Your task to perform on an android device: set an alarm Image 0: 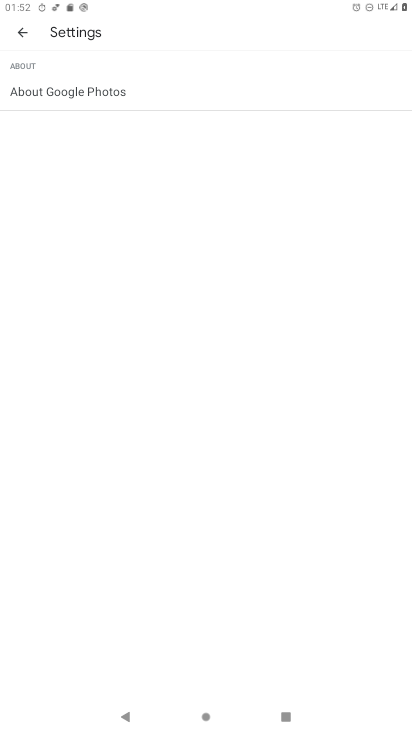
Step 0: press home button
Your task to perform on an android device: set an alarm Image 1: 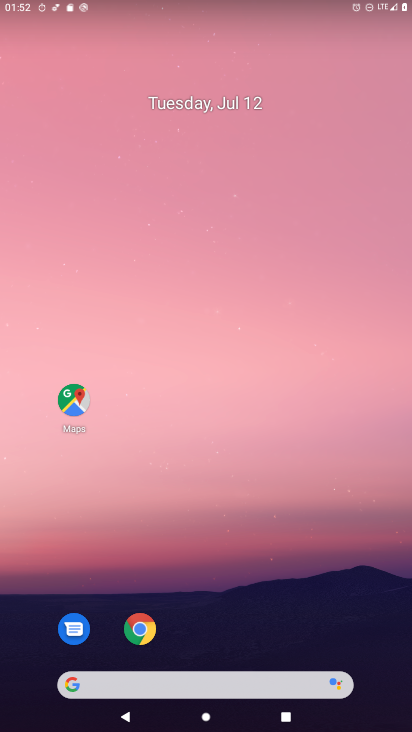
Step 1: drag from (60, 490) to (152, 28)
Your task to perform on an android device: set an alarm Image 2: 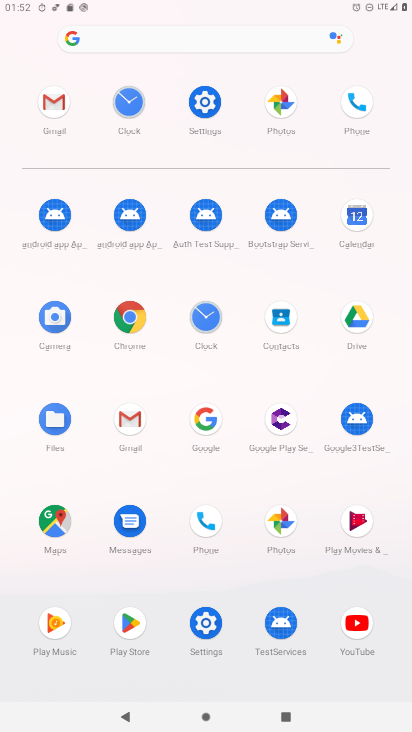
Step 2: click (192, 324)
Your task to perform on an android device: set an alarm Image 3: 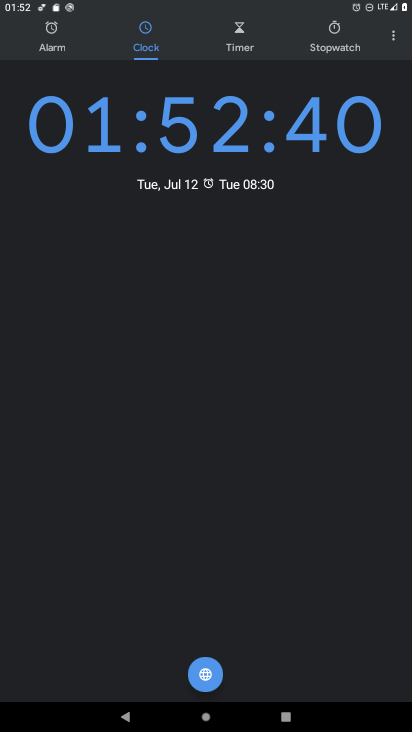
Step 3: click (60, 34)
Your task to perform on an android device: set an alarm Image 4: 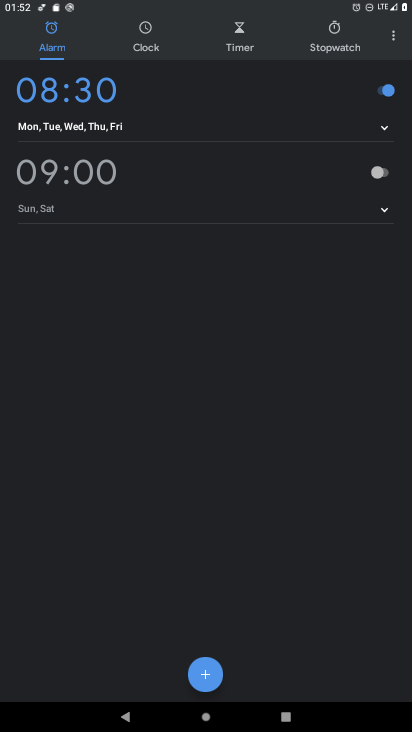
Step 4: click (378, 172)
Your task to perform on an android device: set an alarm Image 5: 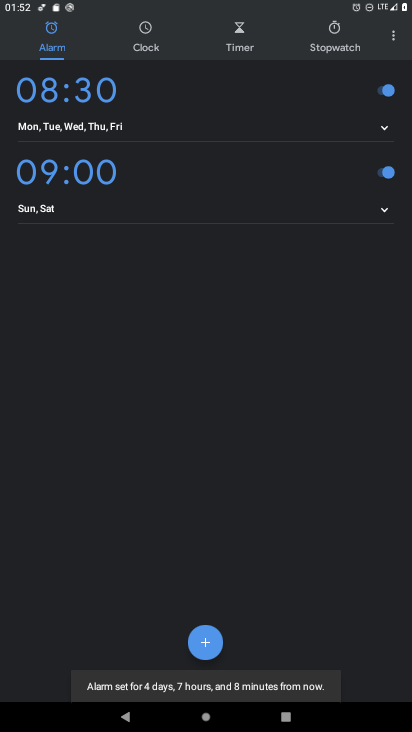
Step 5: click (114, 114)
Your task to perform on an android device: set an alarm Image 6: 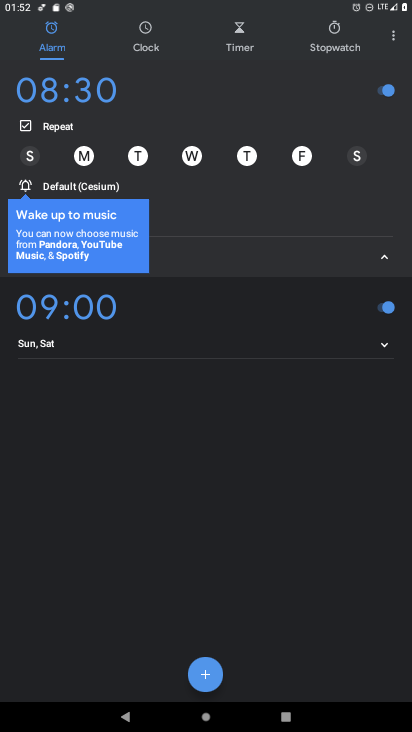
Step 6: click (251, 399)
Your task to perform on an android device: set an alarm Image 7: 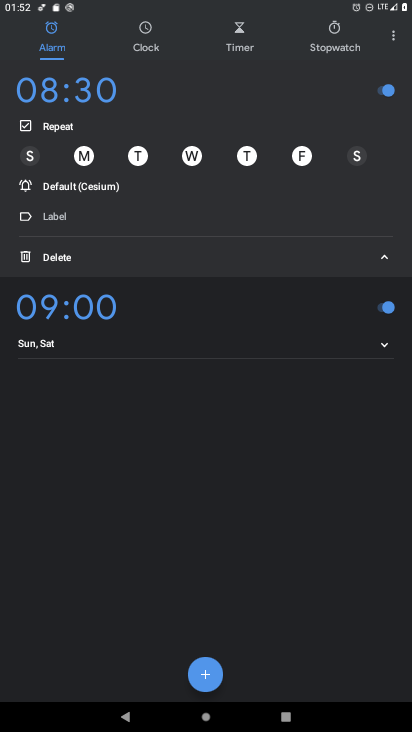
Step 7: click (217, 345)
Your task to perform on an android device: set an alarm Image 8: 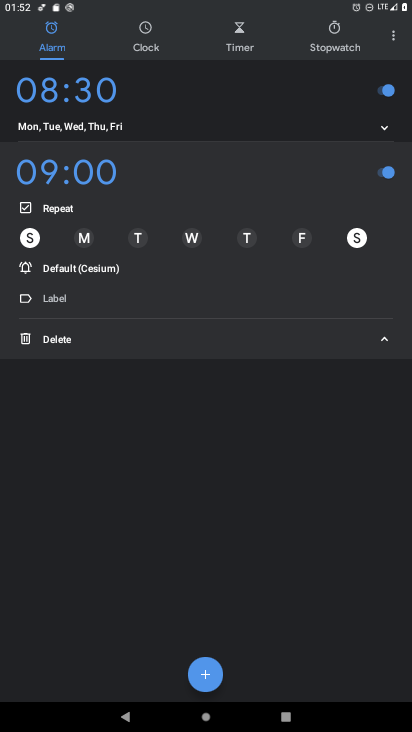
Step 8: click (389, 343)
Your task to perform on an android device: set an alarm Image 9: 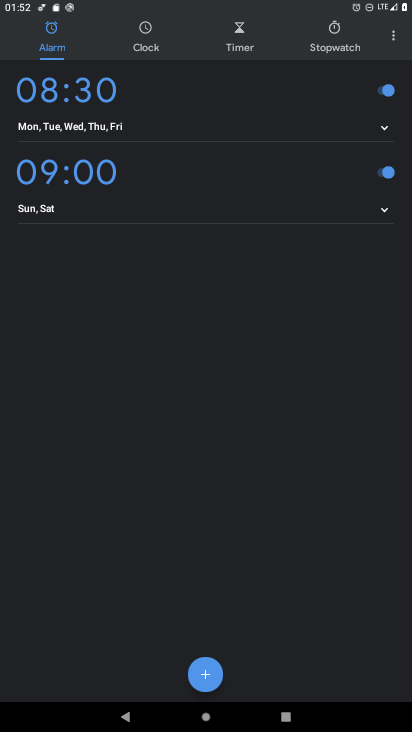
Step 9: task complete